Your task to perform on an android device: change text size in settings app Image 0: 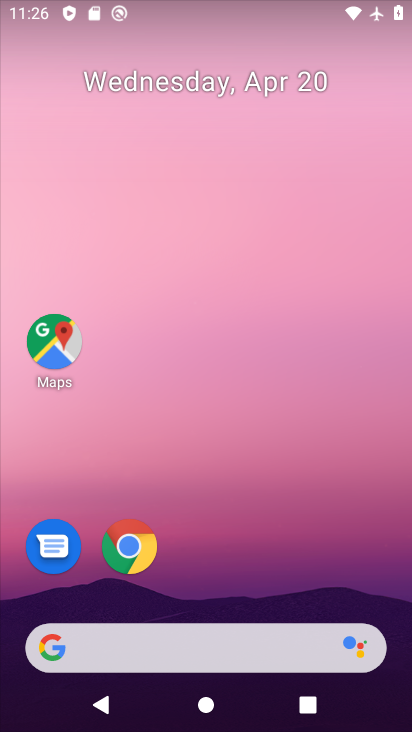
Step 0: press home button
Your task to perform on an android device: change text size in settings app Image 1: 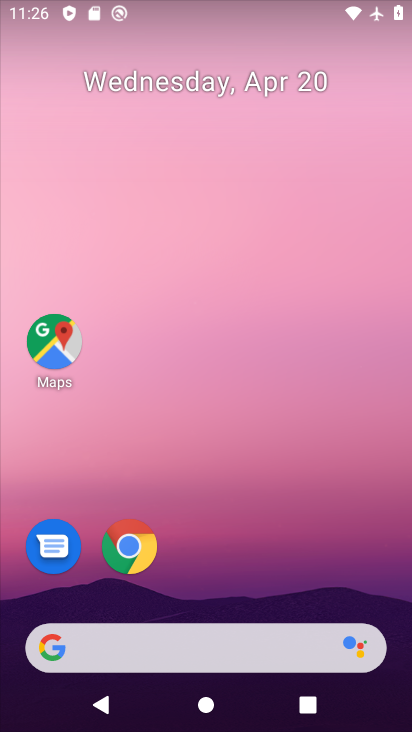
Step 1: drag from (157, 644) to (241, 261)
Your task to perform on an android device: change text size in settings app Image 2: 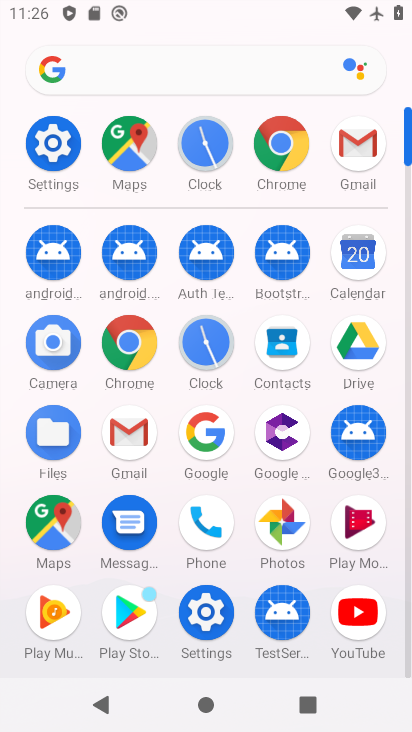
Step 2: click (58, 151)
Your task to perform on an android device: change text size in settings app Image 3: 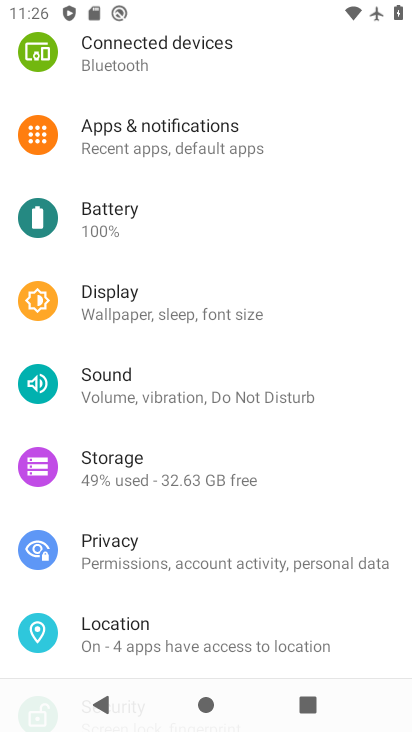
Step 3: drag from (192, 579) to (297, 130)
Your task to perform on an android device: change text size in settings app Image 4: 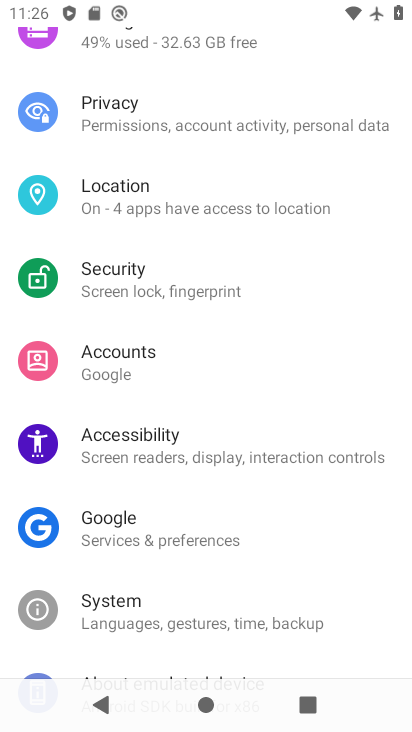
Step 4: drag from (186, 609) to (281, 226)
Your task to perform on an android device: change text size in settings app Image 5: 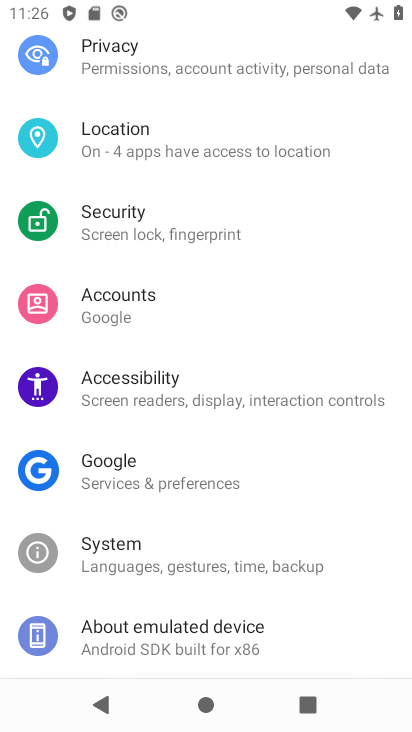
Step 5: drag from (283, 219) to (270, 568)
Your task to perform on an android device: change text size in settings app Image 6: 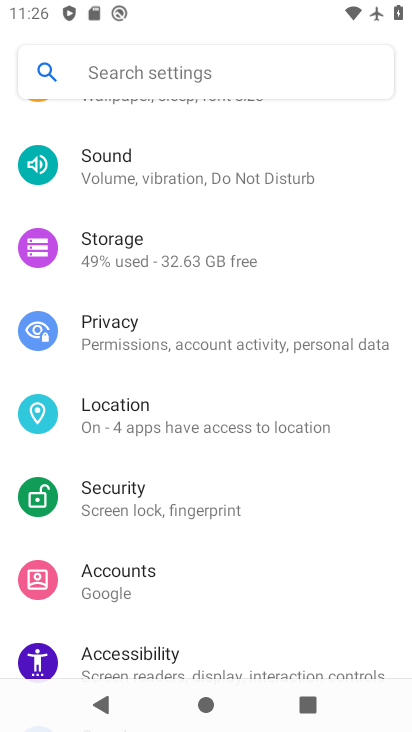
Step 6: drag from (264, 217) to (283, 515)
Your task to perform on an android device: change text size in settings app Image 7: 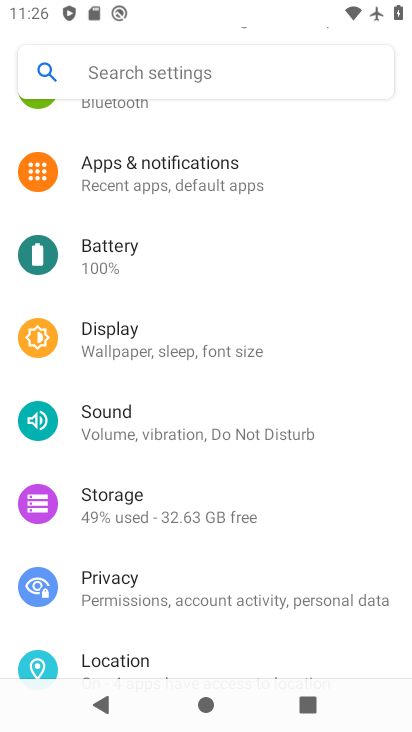
Step 7: click (175, 356)
Your task to perform on an android device: change text size in settings app Image 8: 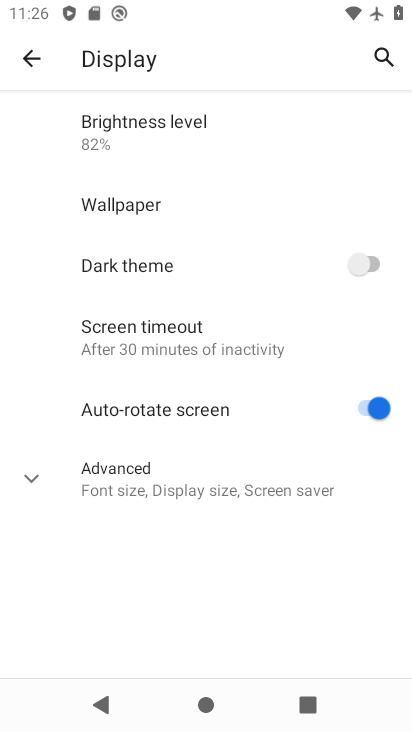
Step 8: click (131, 470)
Your task to perform on an android device: change text size in settings app Image 9: 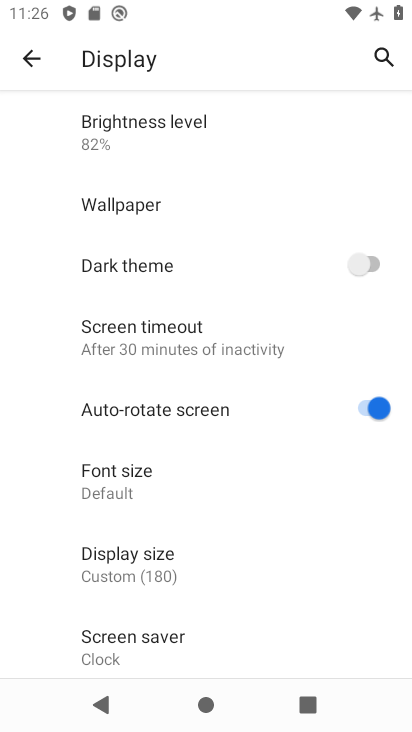
Step 9: click (112, 482)
Your task to perform on an android device: change text size in settings app Image 10: 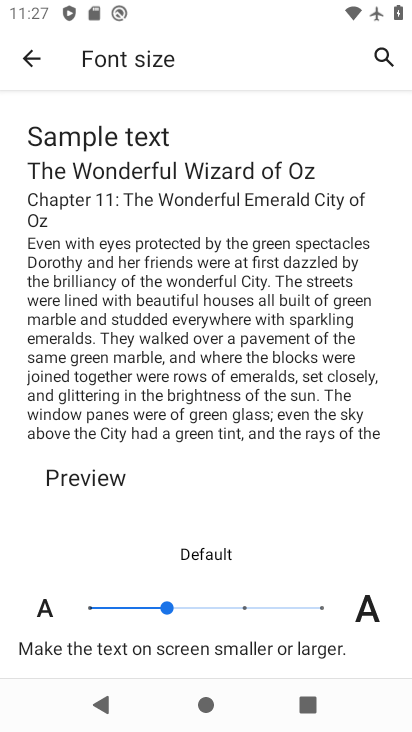
Step 10: click (247, 608)
Your task to perform on an android device: change text size in settings app Image 11: 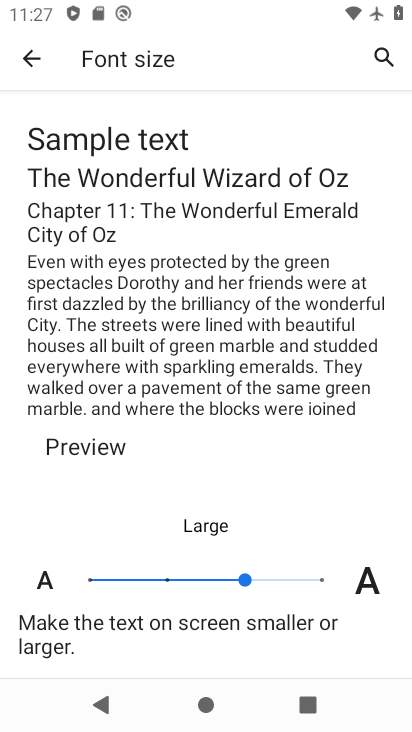
Step 11: task complete